Your task to perform on an android device: Go to sound settings Image 0: 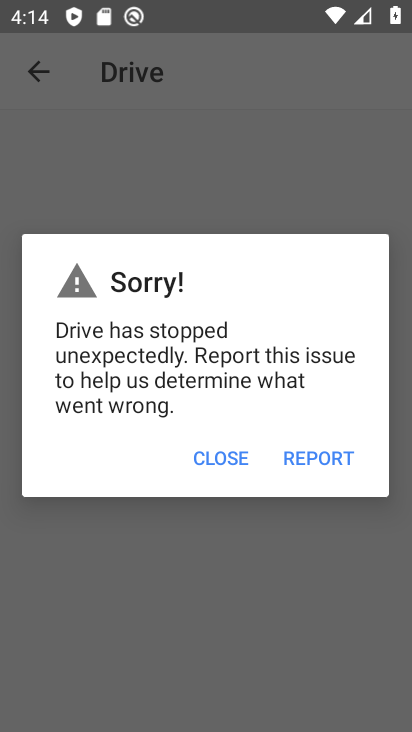
Step 0: click (213, 463)
Your task to perform on an android device: Go to sound settings Image 1: 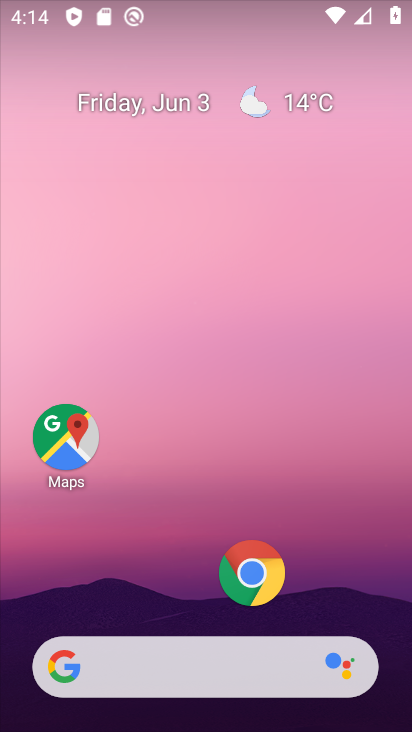
Step 1: drag from (214, 557) to (280, 7)
Your task to perform on an android device: Go to sound settings Image 2: 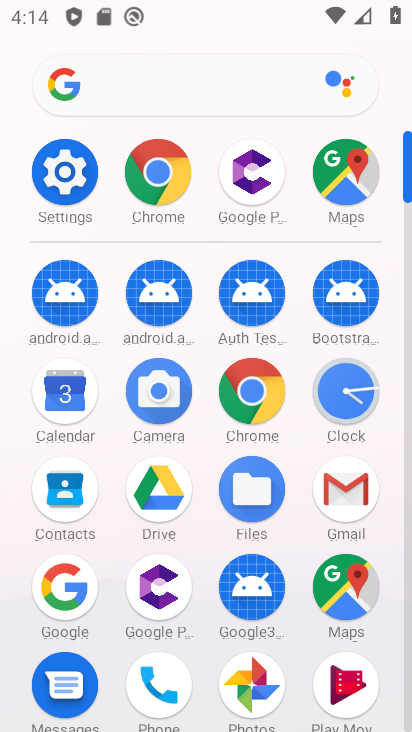
Step 2: click (77, 185)
Your task to perform on an android device: Go to sound settings Image 3: 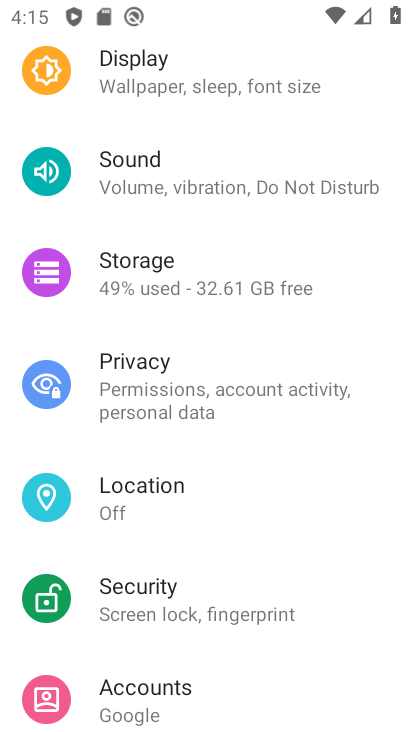
Step 3: click (163, 173)
Your task to perform on an android device: Go to sound settings Image 4: 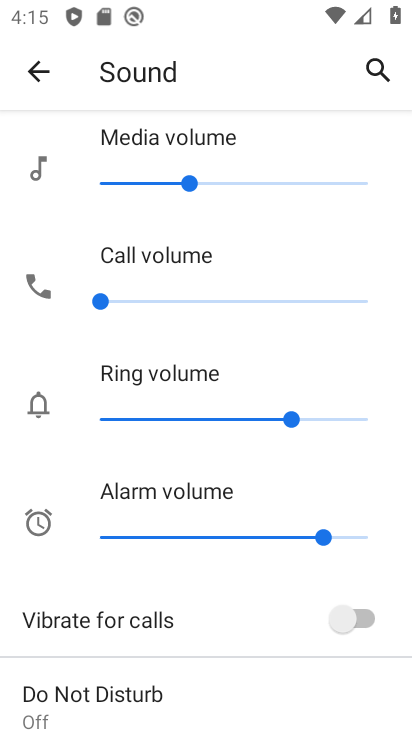
Step 4: task complete